Your task to perform on an android device: open device folders in google photos Image 0: 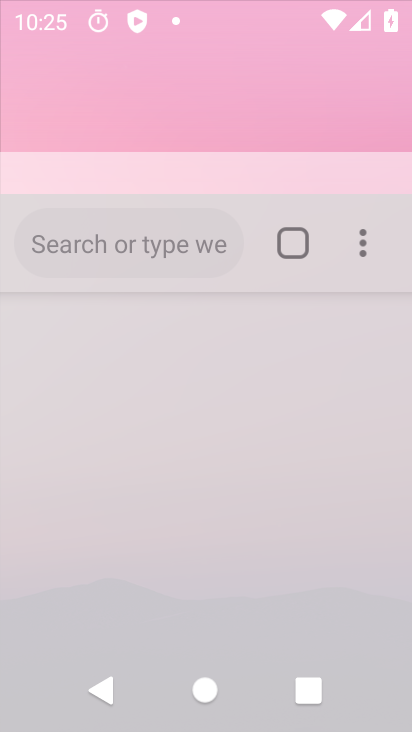
Step 0: click (358, 70)
Your task to perform on an android device: open device folders in google photos Image 1: 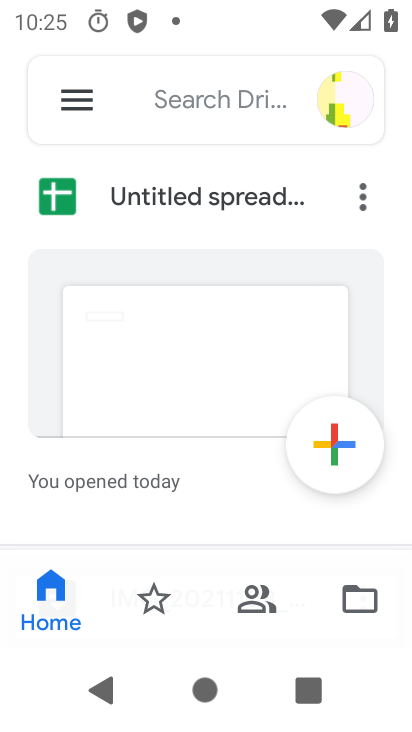
Step 1: press back button
Your task to perform on an android device: open device folders in google photos Image 2: 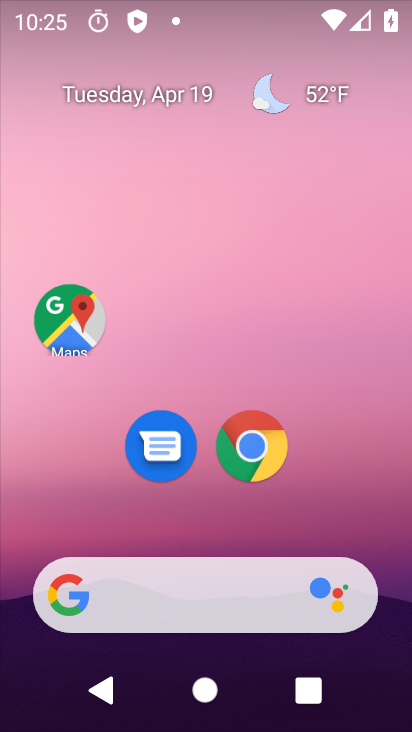
Step 2: drag from (363, 410) to (340, 75)
Your task to perform on an android device: open device folders in google photos Image 3: 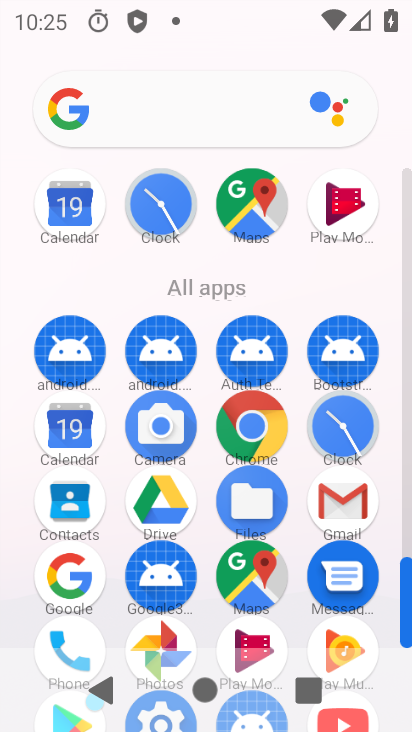
Step 3: click (160, 639)
Your task to perform on an android device: open device folders in google photos Image 4: 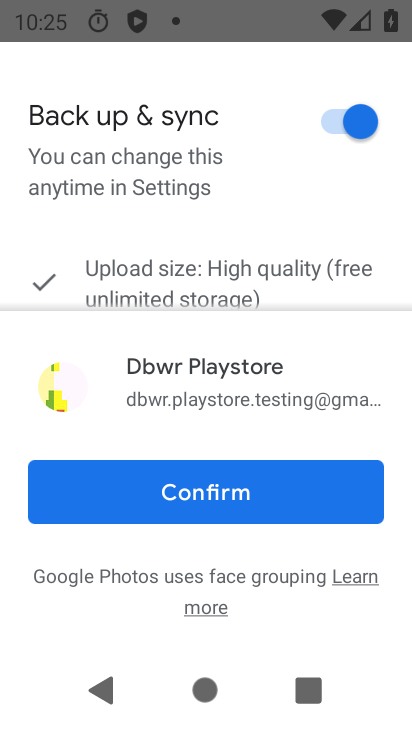
Step 4: click (239, 501)
Your task to perform on an android device: open device folders in google photos Image 5: 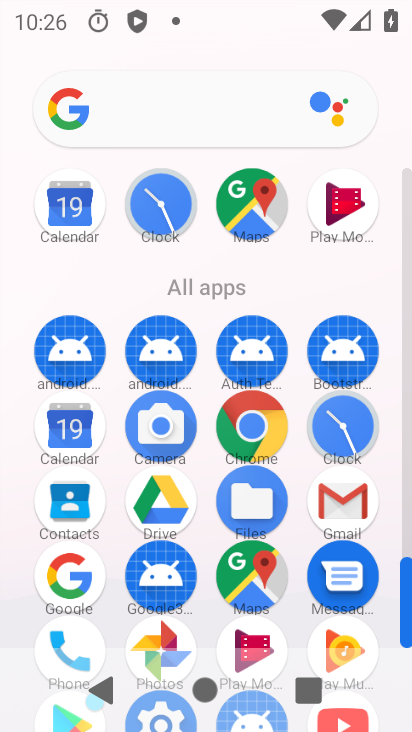
Step 5: click (163, 622)
Your task to perform on an android device: open device folders in google photos Image 6: 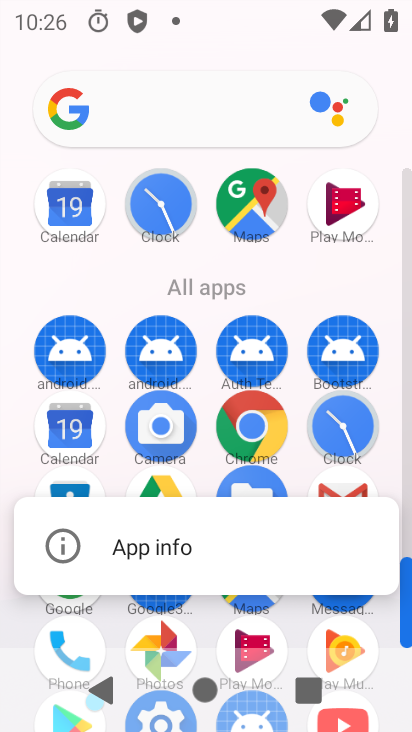
Step 6: click (164, 620)
Your task to perform on an android device: open device folders in google photos Image 7: 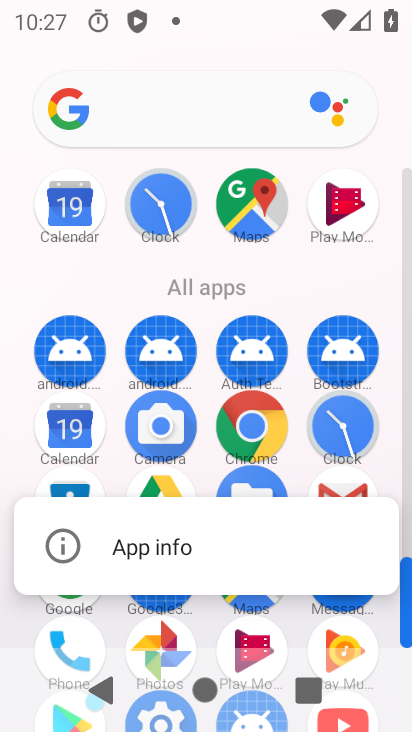
Step 7: click (163, 634)
Your task to perform on an android device: open device folders in google photos Image 8: 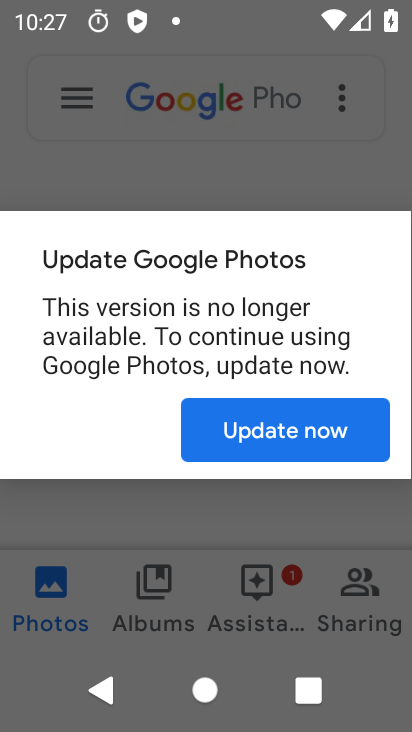
Step 8: click (343, 428)
Your task to perform on an android device: open device folders in google photos Image 9: 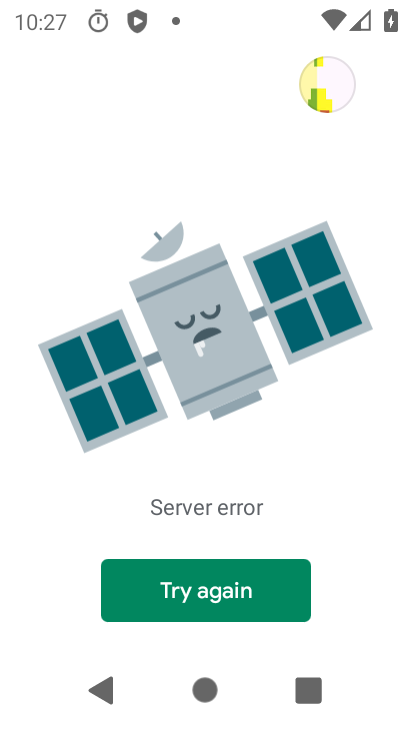
Step 9: press back button
Your task to perform on an android device: open device folders in google photos Image 10: 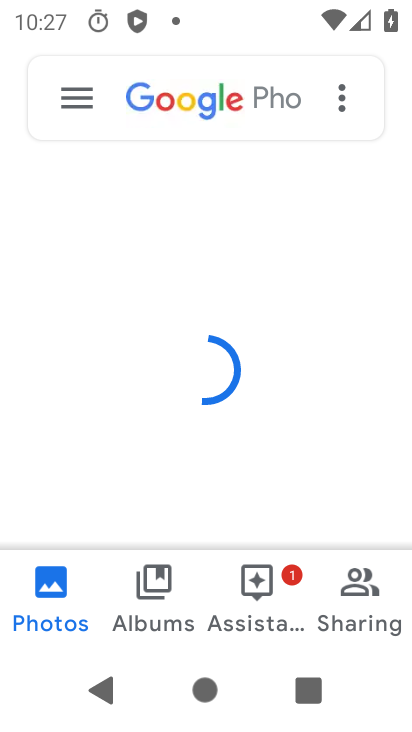
Step 10: click (78, 91)
Your task to perform on an android device: open device folders in google photos Image 11: 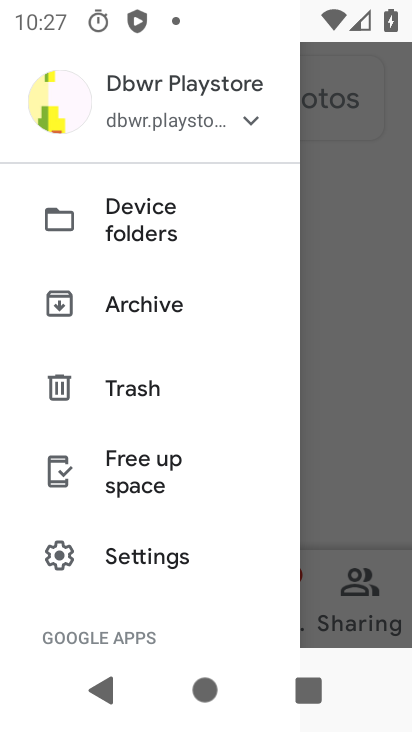
Step 11: click (119, 232)
Your task to perform on an android device: open device folders in google photos Image 12: 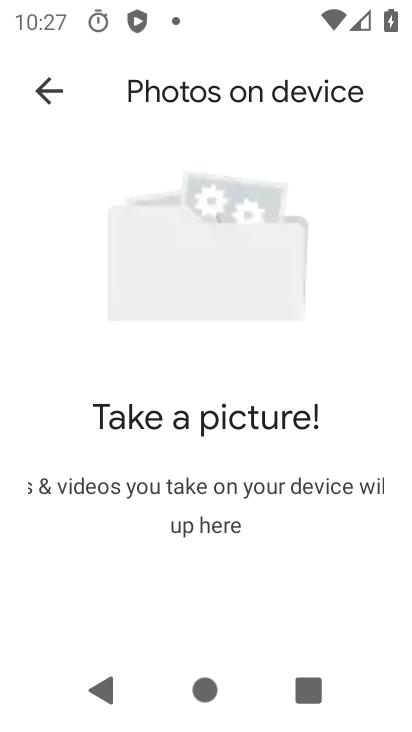
Step 12: task complete